Your task to perform on an android device: Open Youtube and go to the subscriptions tab Image 0: 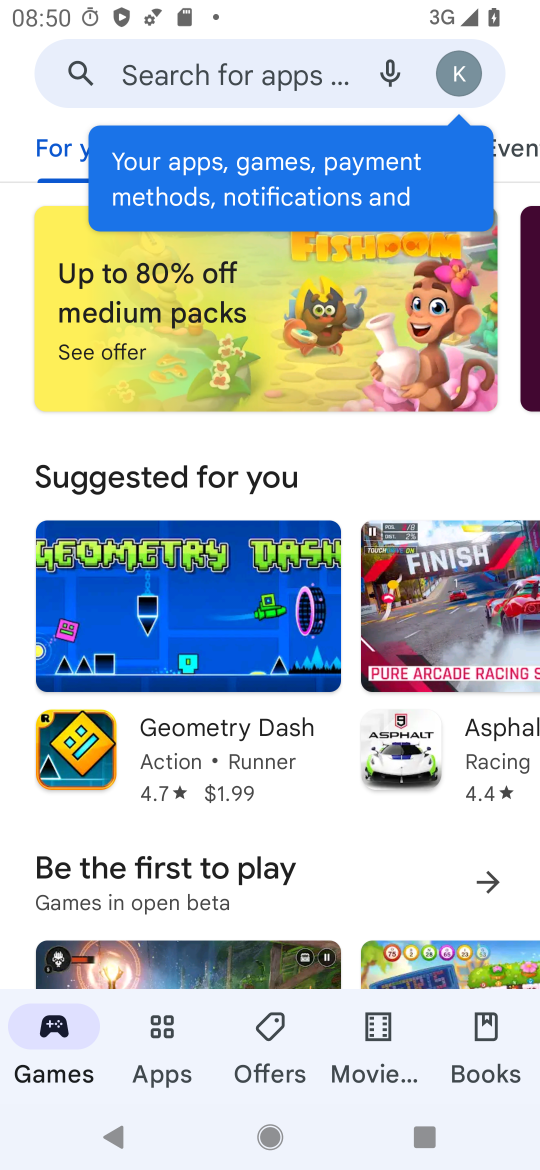
Step 0: press home button
Your task to perform on an android device: Open Youtube and go to the subscriptions tab Image 1: 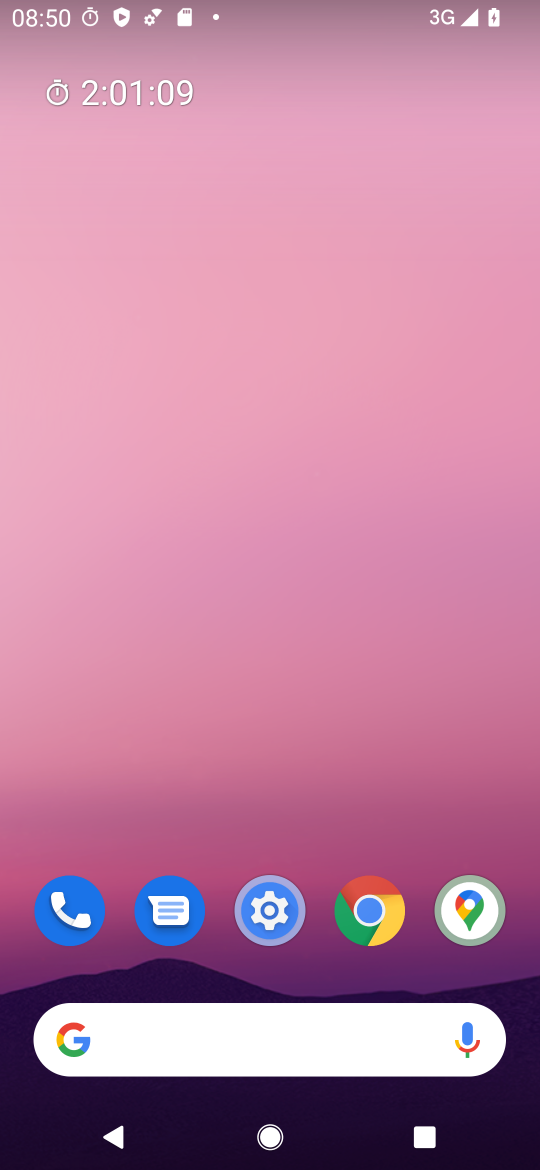
Step 1: drag from (337, 1044) to (301, 4)
Your task to perform on an android device: Open Youtube and go to the subscriptions tab Image 2: 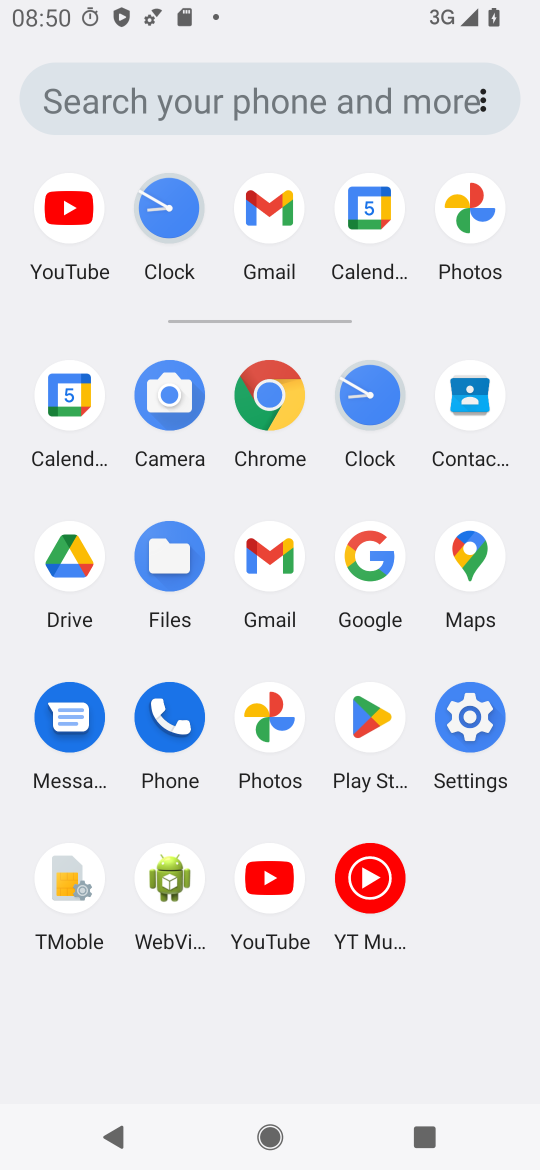
Step 2: click (266, 874)
Your task to perform on an android device: Open Youtube and go to the subscriptions tab Image 3: 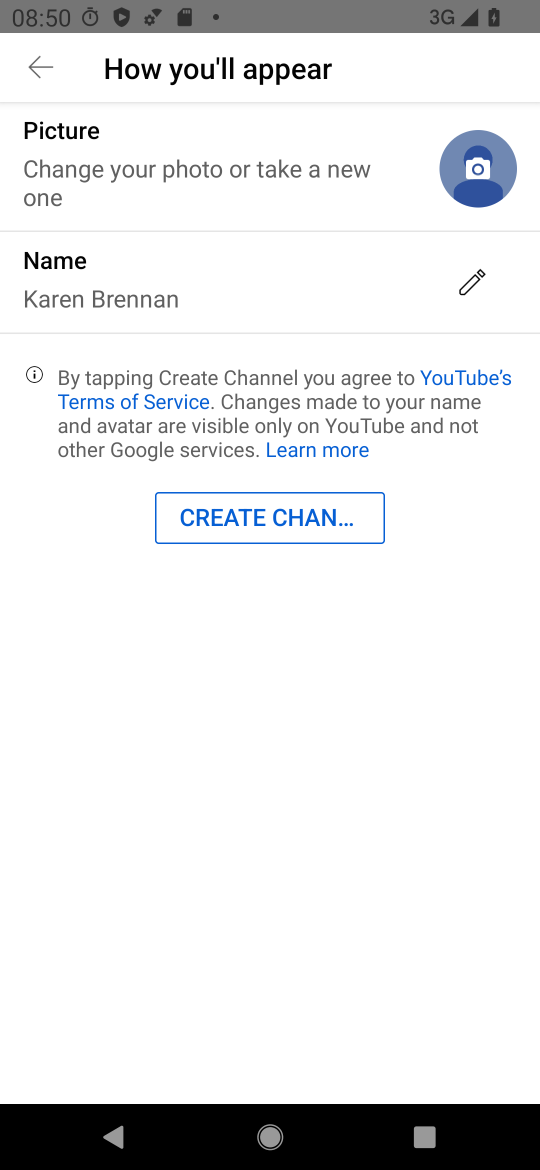
Step 3: press back button
Your task to perform on an android device: Open Youtube and go to the subscriptions tab Image 4: 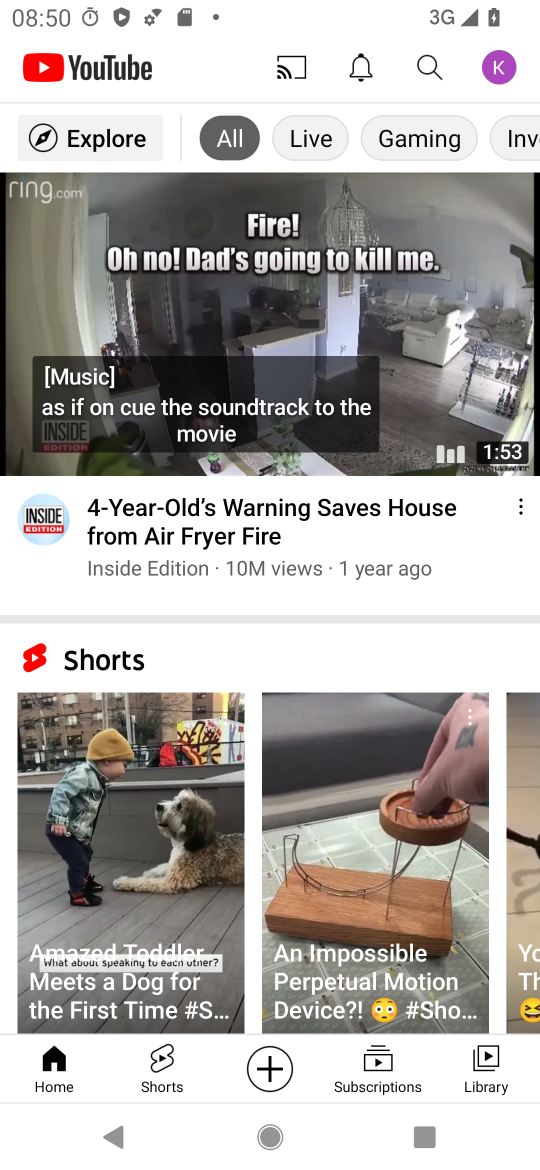
Step 4: click (374, 1053)
Your task to perform on an android device: Open Youtube and go to the subscriptions tab Image 5: 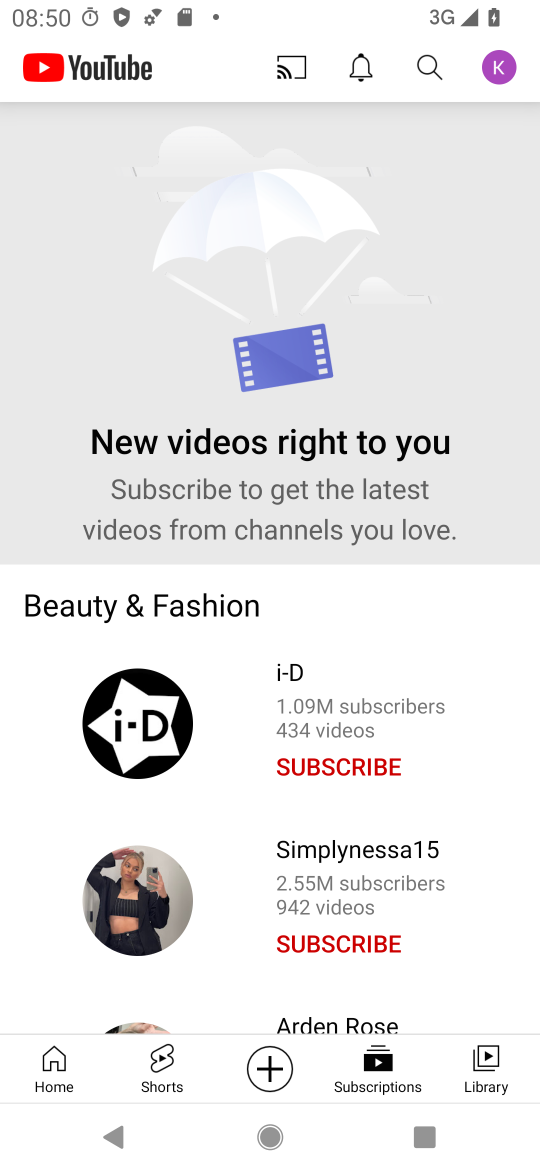
Step 5: task complete